Your task to perform on an android device: turn on the 24-hour format for clock Image 0: 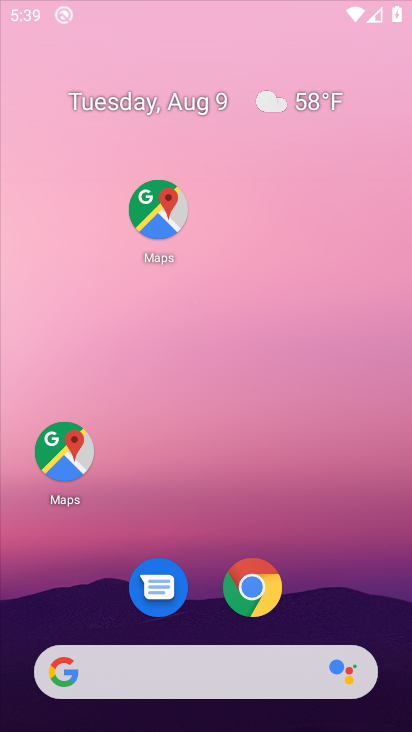
Step 0: drag from (98, 686) to (85, 128)
Your task to perform on an android device: turn on the 24-hour format for clock Image 1: 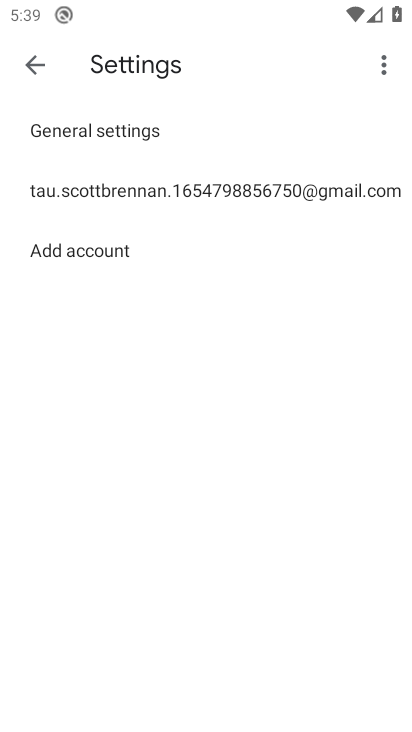
Step 1: click (31, 71)
Your task to perform on an android device: turn on the 24-hour format for clock Image 2: 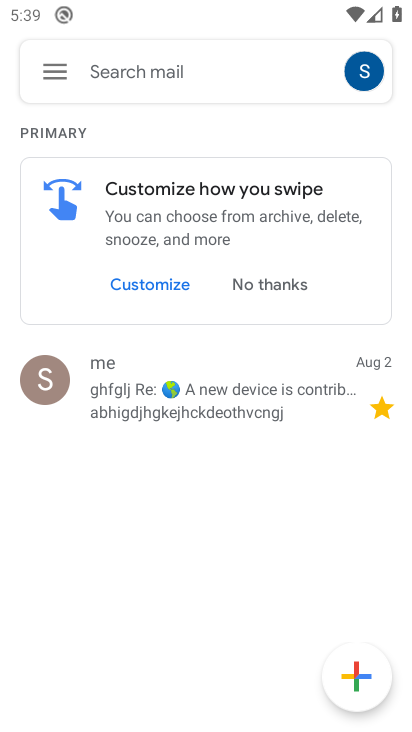
Step 2: press back button
Your task to perform on an android device: turn on the 24-hour format for clock Image 3: 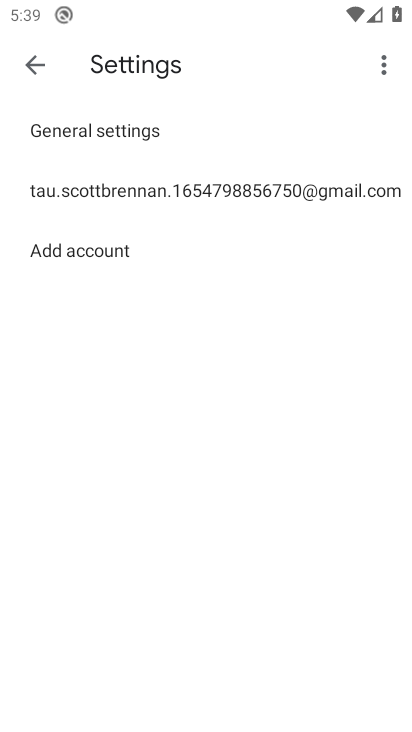
Step 3: click (47, 77)
Your task to perform on an android device: turn on the 24-hour format for clock Image 4: 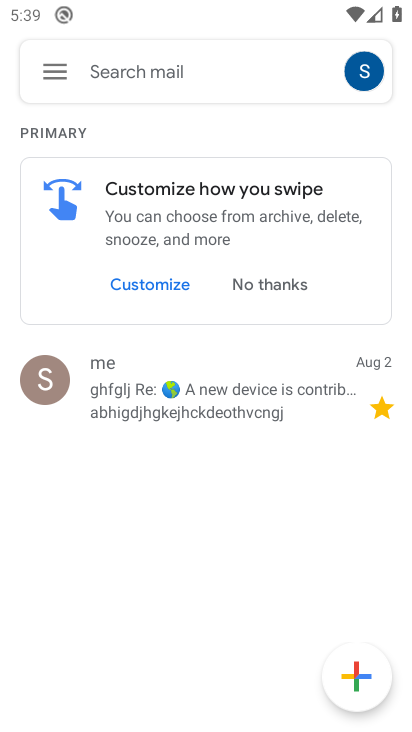
Step 4: press home button
Your task to perform on an android device: turn on the 24-hour format for clock Image 5: 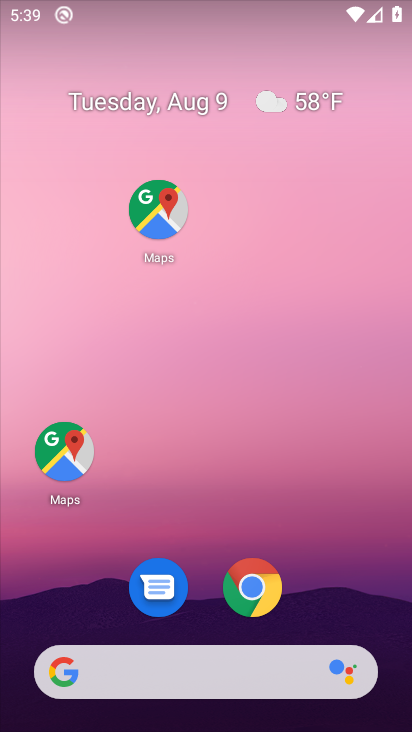
Step 5: drag from (205, 645) to (106, 160)
Your task to perform on an android device: turn on the 24-hour format for clock Image 6: 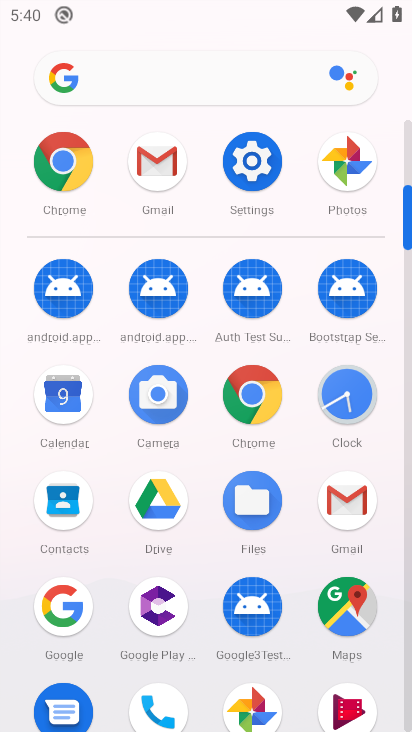
Step 6: click (339, 390)
Your task to perform on an android device: turn on the 24-hour format for clock Image 7: 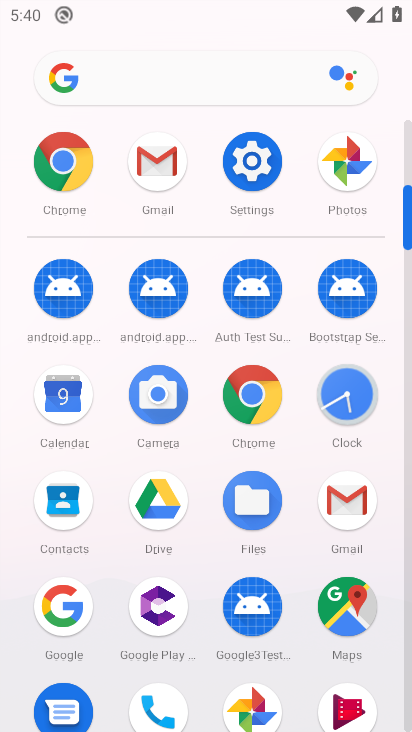
Step 7: click (339, 390)
Your task to perform on an android device: turn on the 24-hour format for clock Image 8: 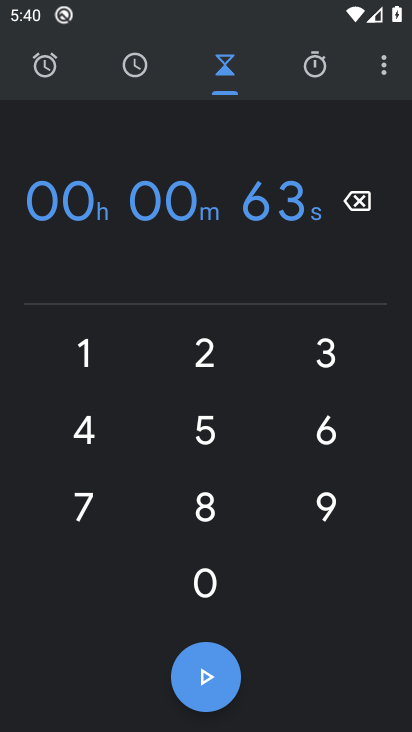
Step 8: click (380, 66)
Your task to perform on an android device: turn on the 24-hour format for clock Image 9: 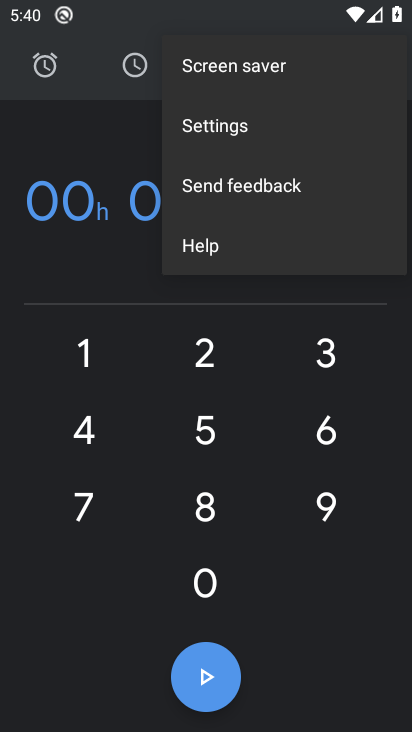
Step 9: click (227, 134)
Your task to perform on an android device: turn on the 24-hour format for clock Image 10: 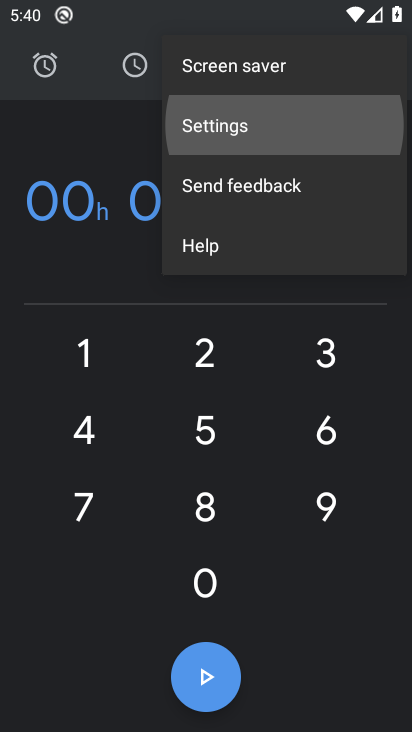
Step 10: click (227, 134)
Your task to perform on an android device: turn on the 24-hour format for clock Image 11: 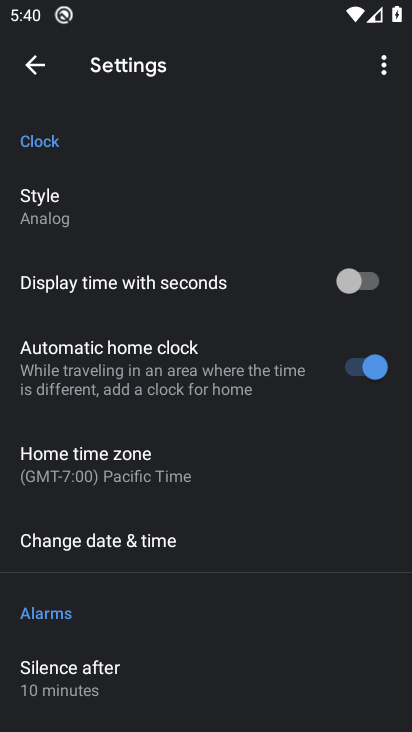
Step 11: click (97, 463)
Your task to perform on an android device: turn on the 24-hour format for clock Image 12: 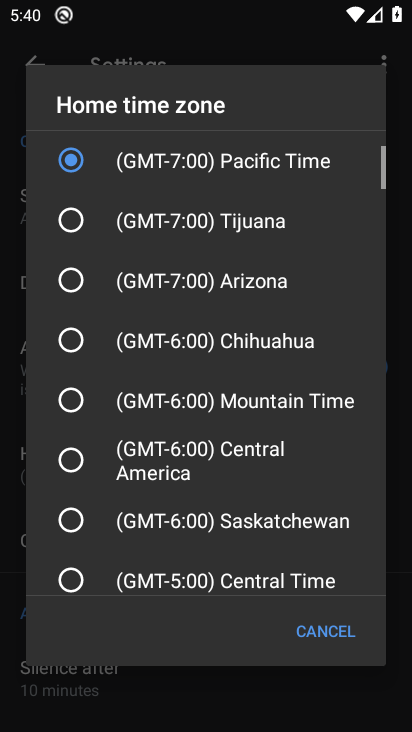
Step 12: click (91, 551)
Your task to perform on an android device: turn on the 24-hour format for clock Image 13: 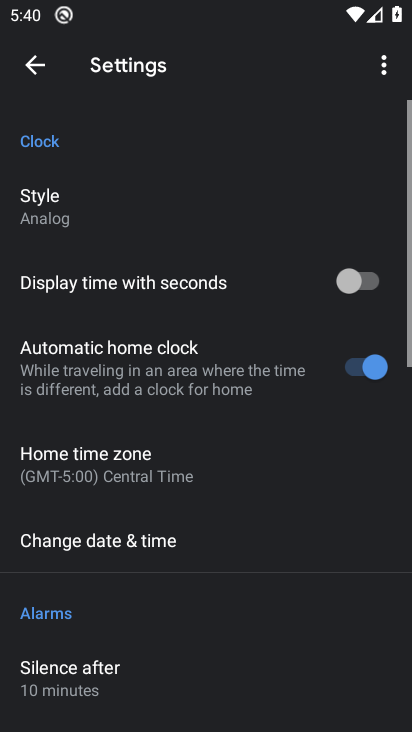
Step 13: click (54, 539)
Your task to perform on an android device: turn on the 24-hour format for clock Image 14: 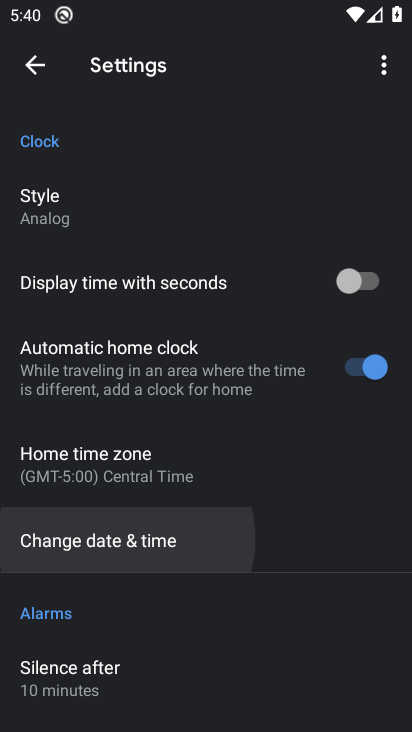
Step 14: click (53, 540)
Your task to perform on an android device: turn on the 24-hour format for clock Image 15: 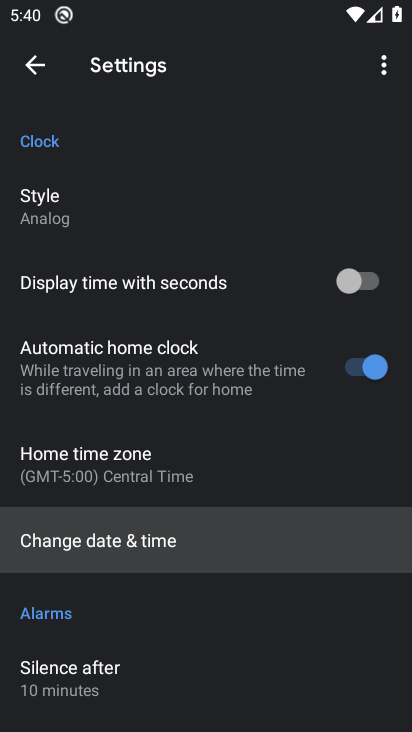
Step 15: click (56, 539)
Your task to perform on an android device: turn on the 24-hour format for clock Image 16: 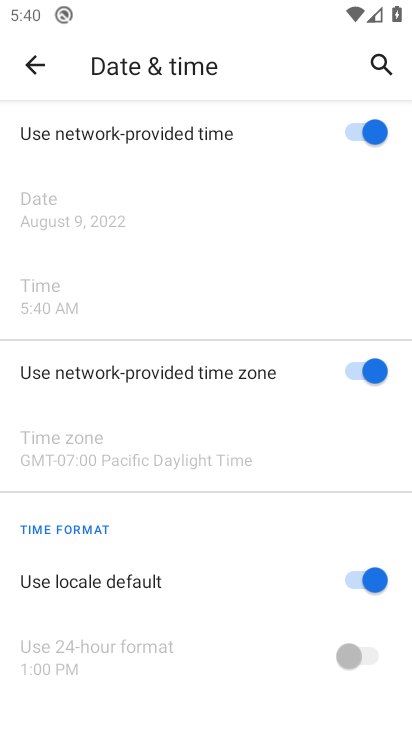
Step 16: click (338, 655)
Your task to perform on an android device: turn on the 24-hour format for clock Image 17: 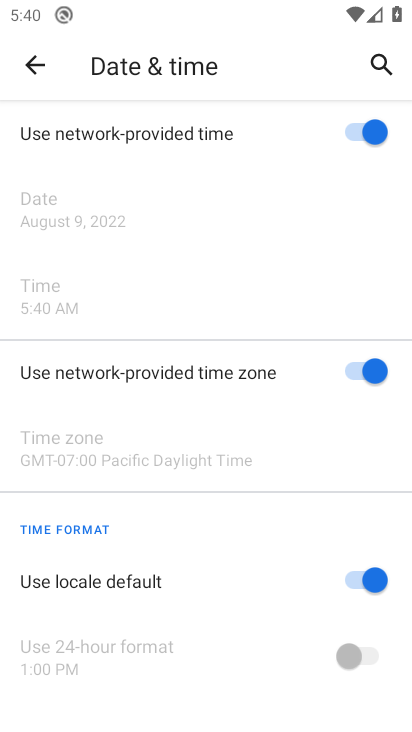
Step 17: click (379, 579)
Your task to perform on an android device: turn on the 24-hour format for clock Image 18: 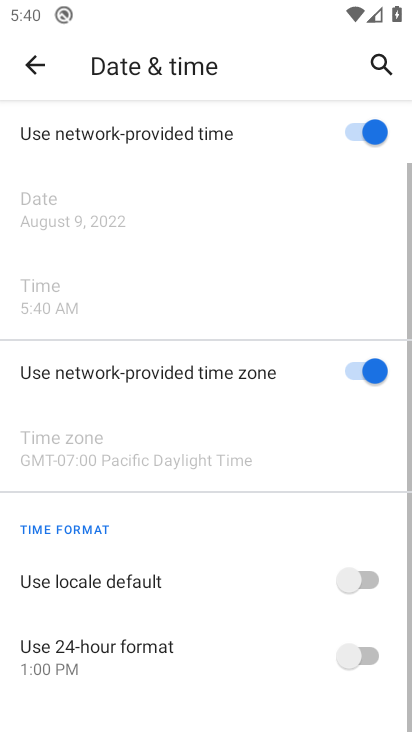
Step 18: click (349, 648)
Your task to perform on an android device: turn on the 24-hour format for clock Image 19: 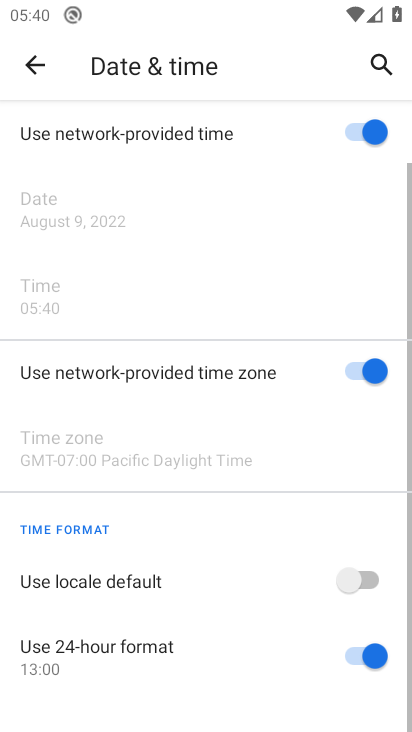
Step 19: task complete